Your task to perform on an android device: Open calendar and show me the first week of next month Image 0: 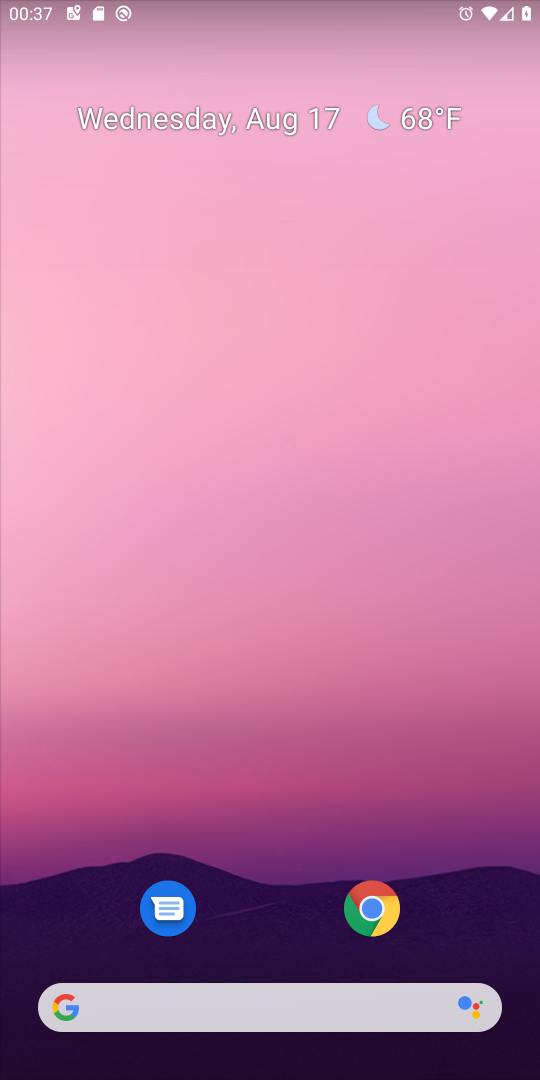
Step 0: drag from (273, 850) to (251, 321)
Your task to perform on an android device: Open calendar and show me the first week of next month Image 1: 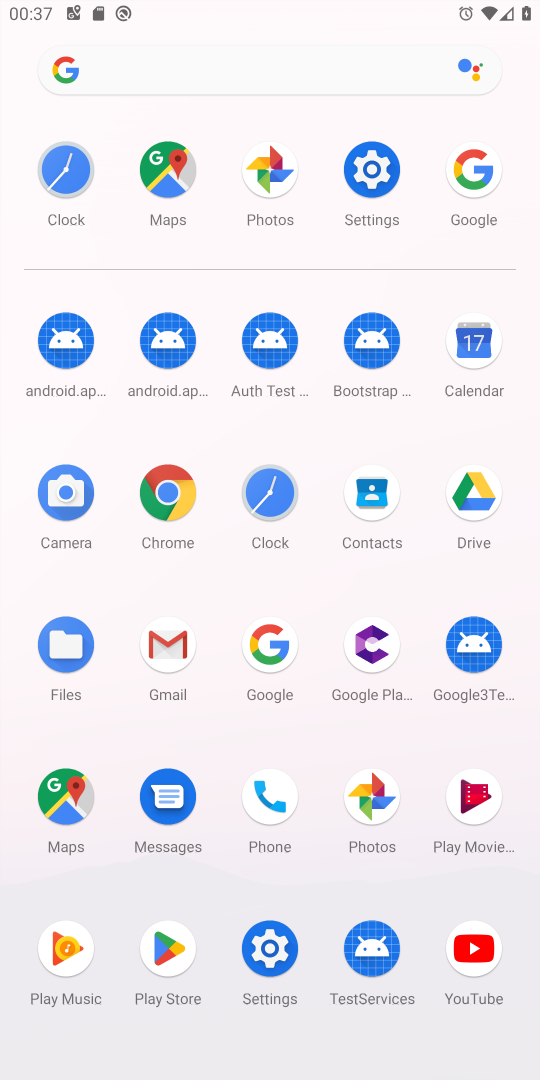
Step 1: click (490, 323)
Your task to perform on an android device: Open calendar and show me the first week of next month Image 2: 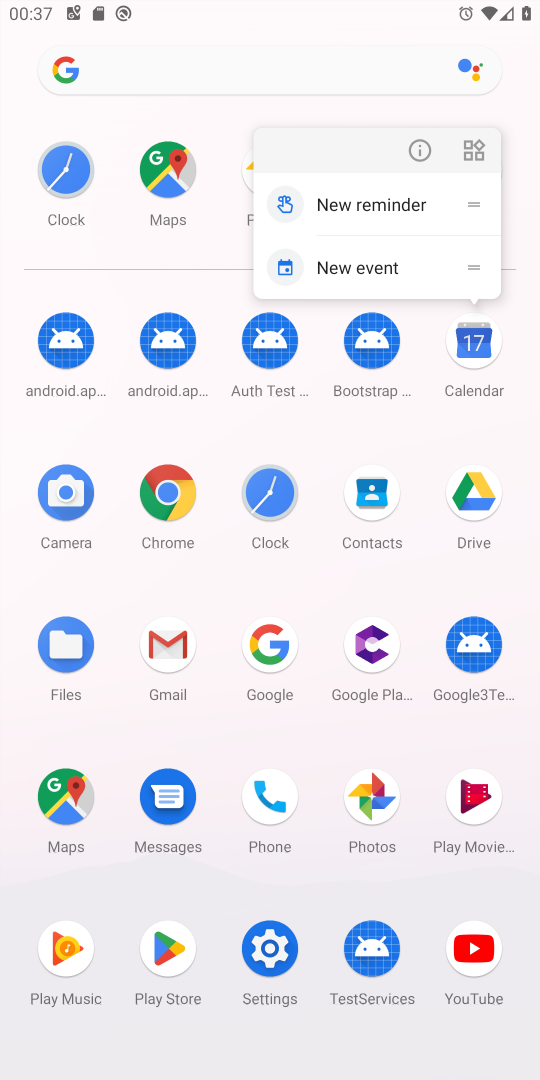
Step 2: click (487, 340)
Your task to perform on an android device: Open calendar and show me the first week of next month Image 3: 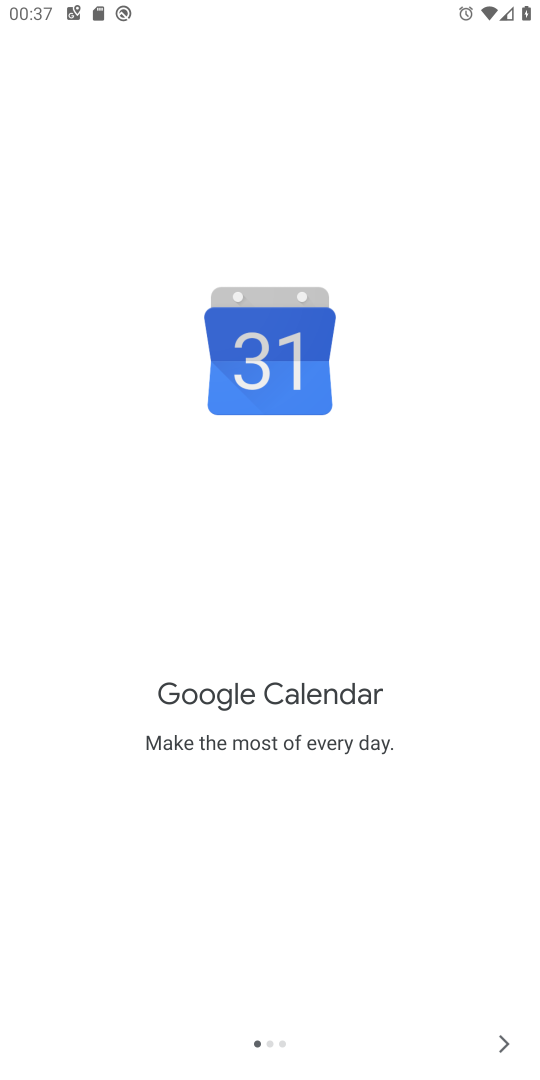
Step 3: click (494, 1051)
Your task to perform on an android device: Open calendar and show me the first week of next month Image 4: 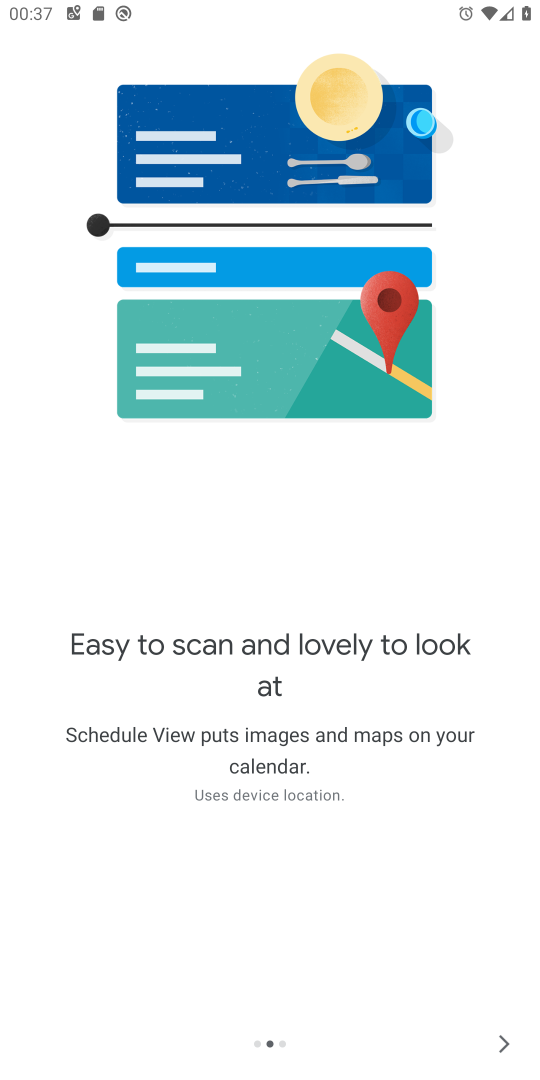
Step 4: click (494, 1051)
Your task to perform on an android device: Open calendar and show me the first week of next month Image 5: 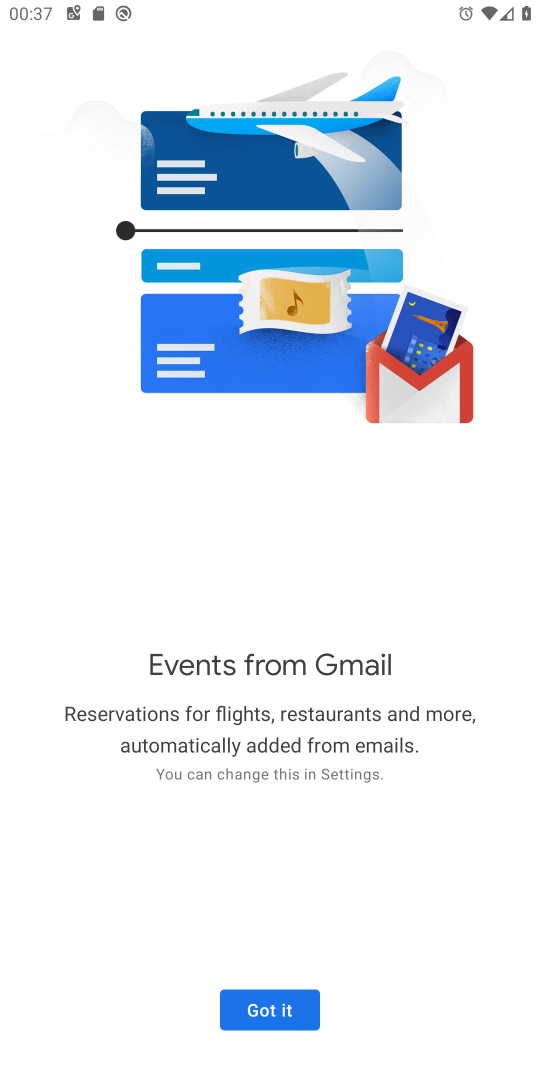
Step 5: click (259, 1020)
Your task to perform on an android device: Open calendar and show me the first week of next month Image 6: 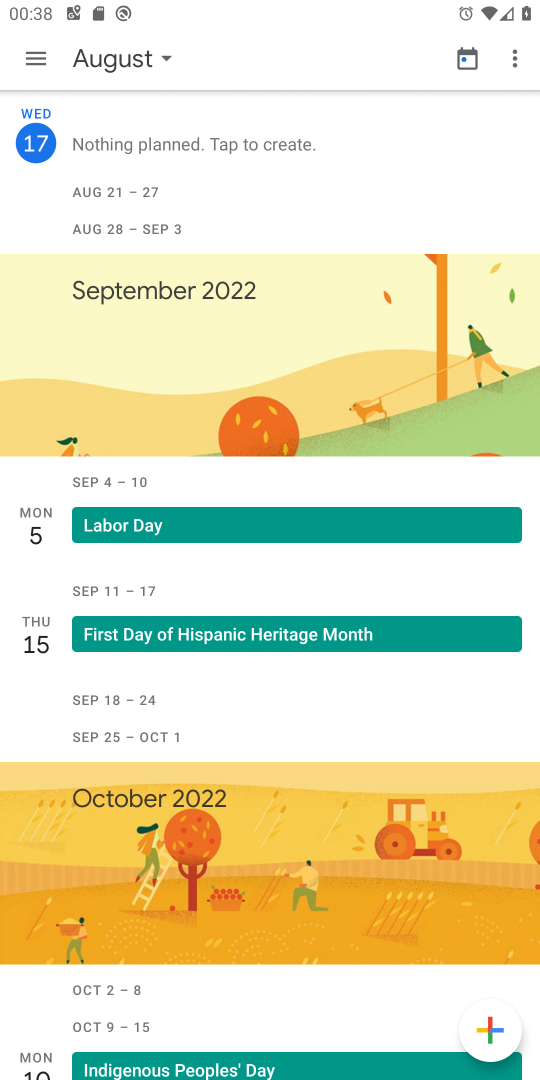
Step 6: click (151, 63)
Your task to perform on an android device: Open calendar and show me the first week of next month Image 7: 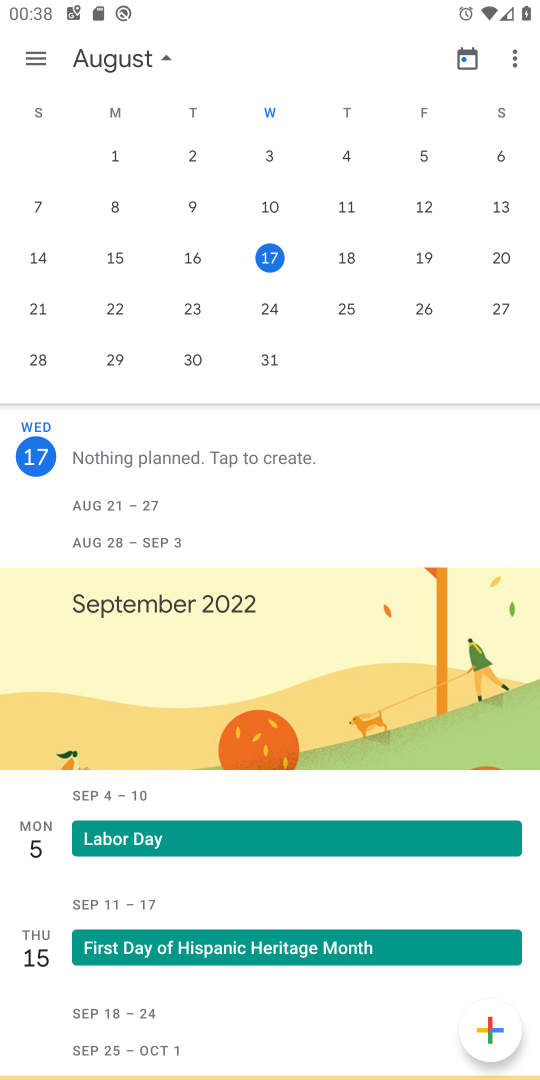
Step 7: task complete